Your task to perform on an android device: star an email in the gmail app Image 0: 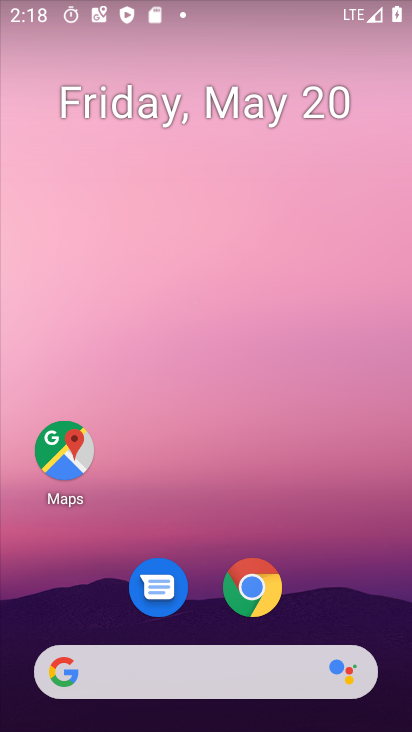
Step 0: drag from (344, 567) to (298, 31)
Your task to perform on an android device: star an email in the gmail app Image 1: 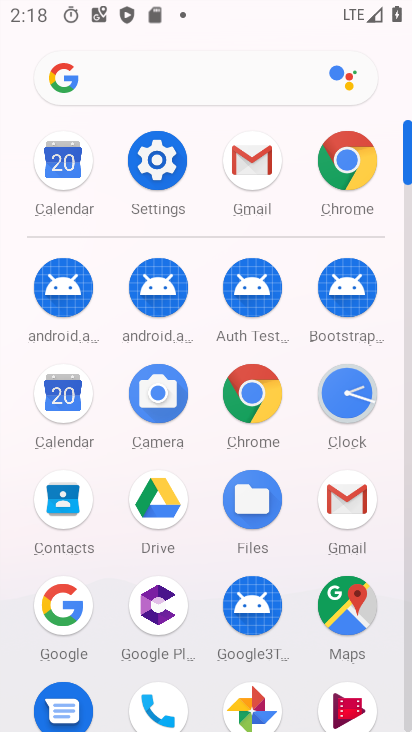
Step 1: click (264, 162)
Your task to perform on an android device: star an email in the gmail app Image 2: 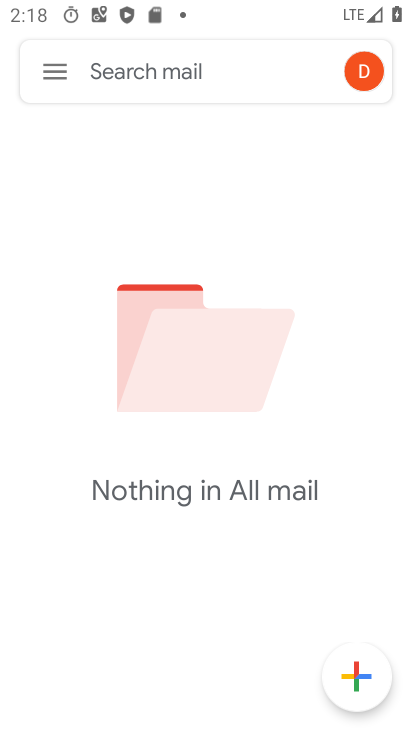
Step 2: click (52, 69)
Your task to perform on an android device: star an email in the gmail app Image 3: 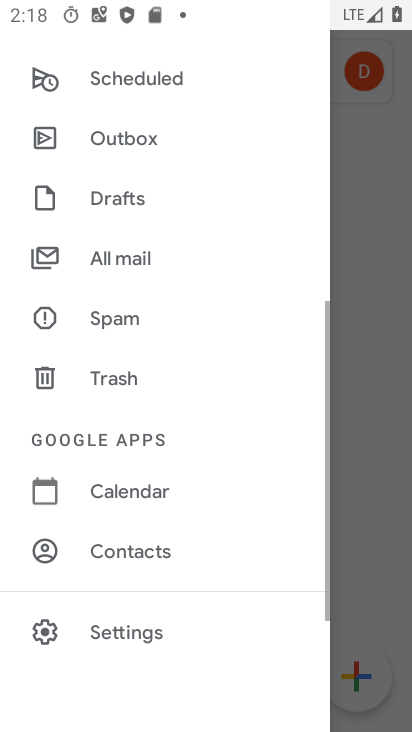
Step 3: click (141, 271)
Your task to perform on an android device: star an email in the gmail app Image 4: 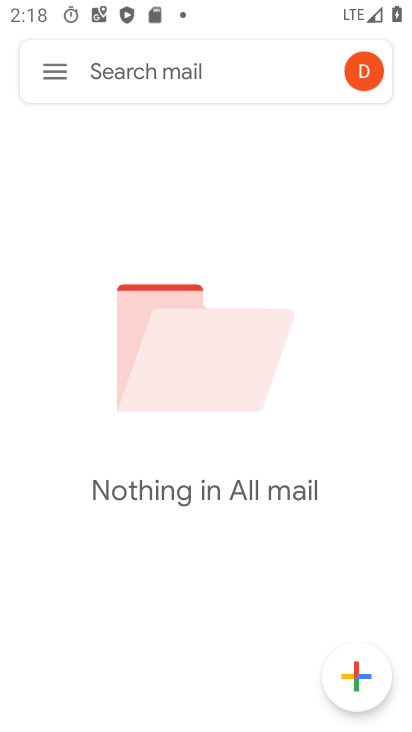
Step 4: task complete